Your task to perform on an android device: Show me popular videos on Youtube Image 0: 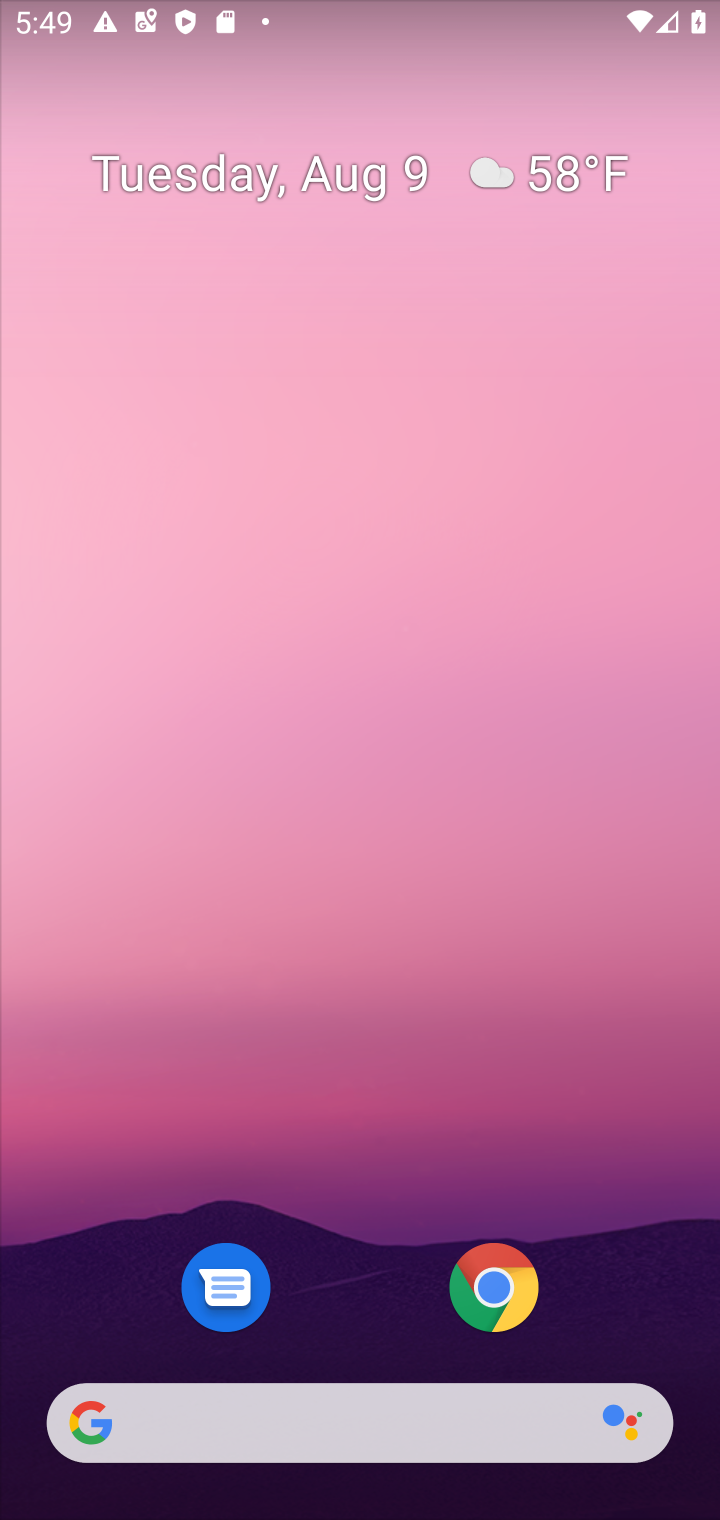
Step 0: drag from (370, 1239) to (333, 719)
Your task to perform on an android device: Show me popular videos on Youtube Image 1: 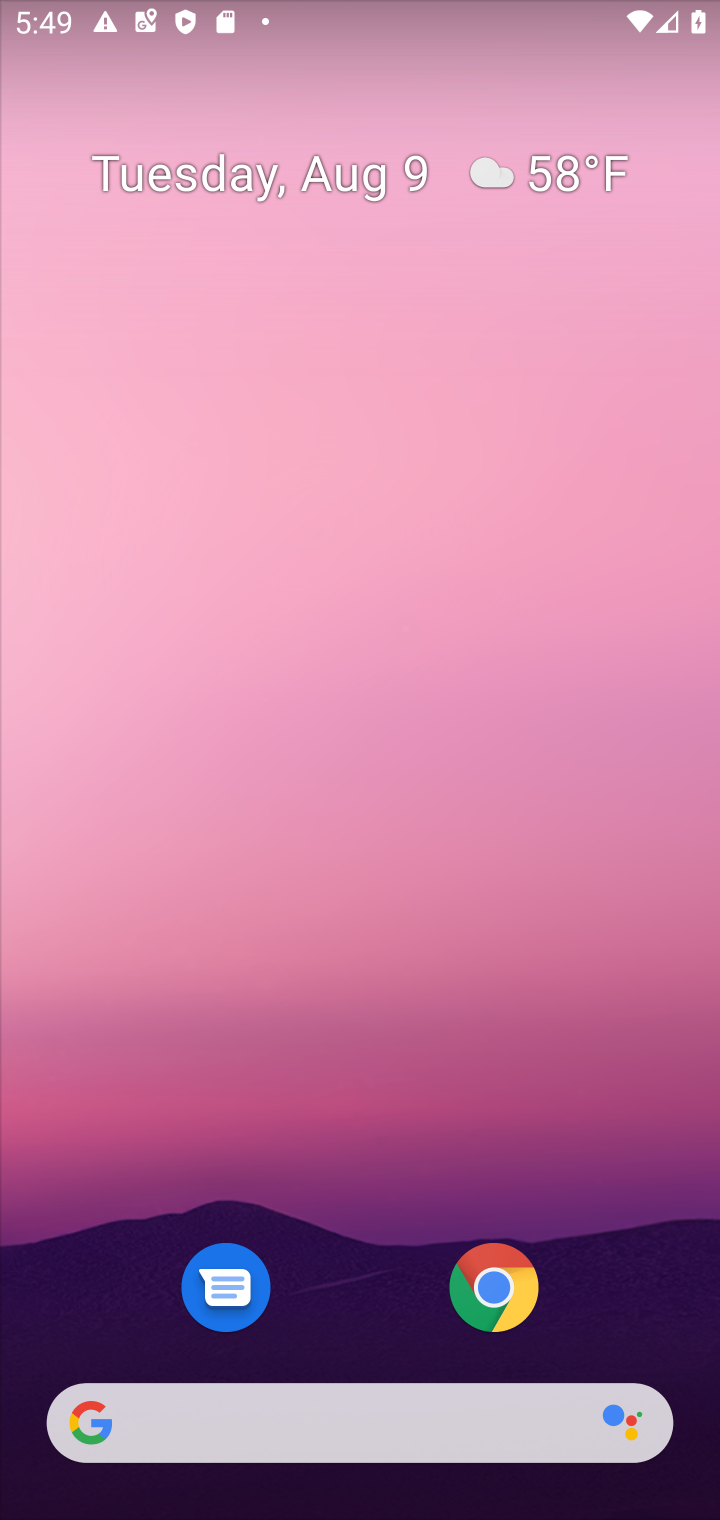
Step 1: drag from (395, 1195) to (374, 472)
Your task to perform on an android device: Show me popular videos on Youtube Image 2: 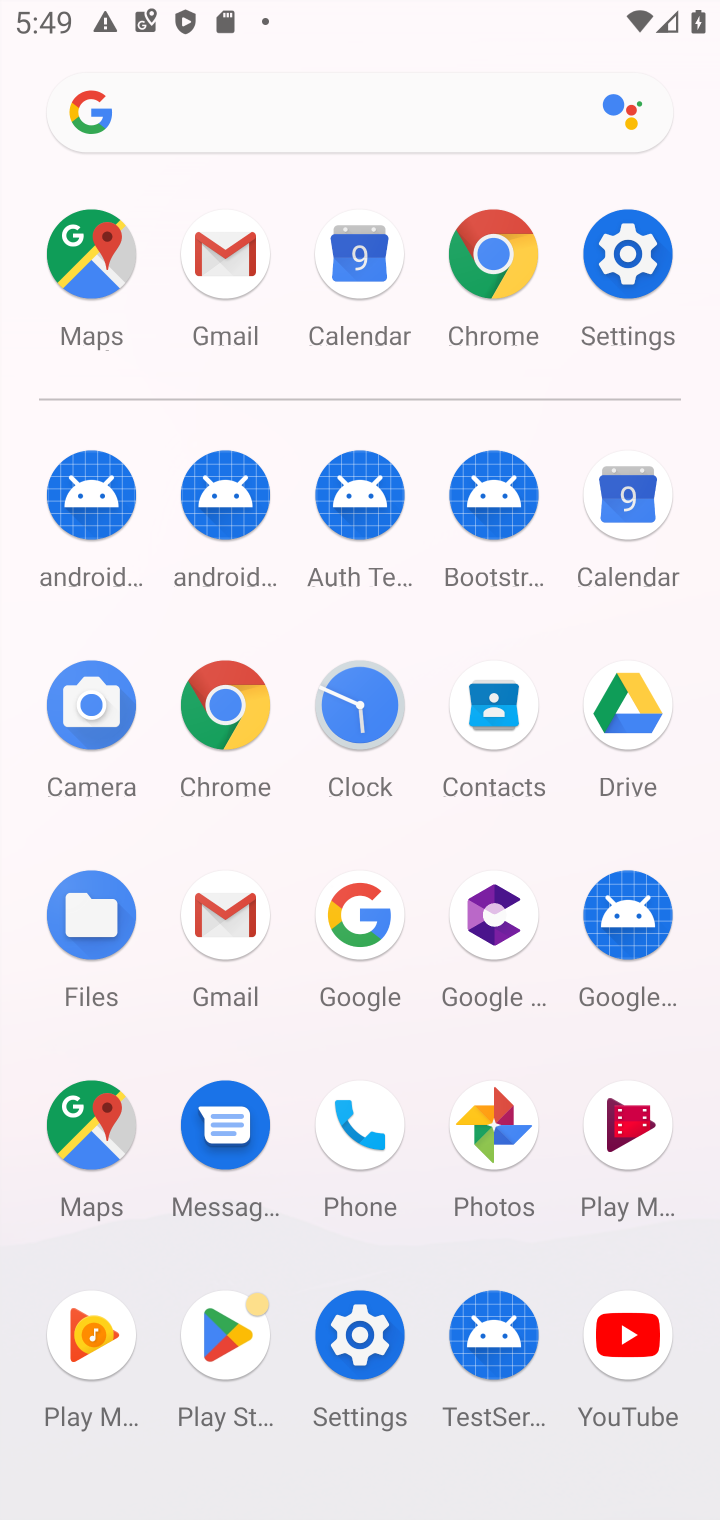
Step 2: click (619, 1340)
Your task to perform on an android device: Show me popular videos on Youtube Image 3: 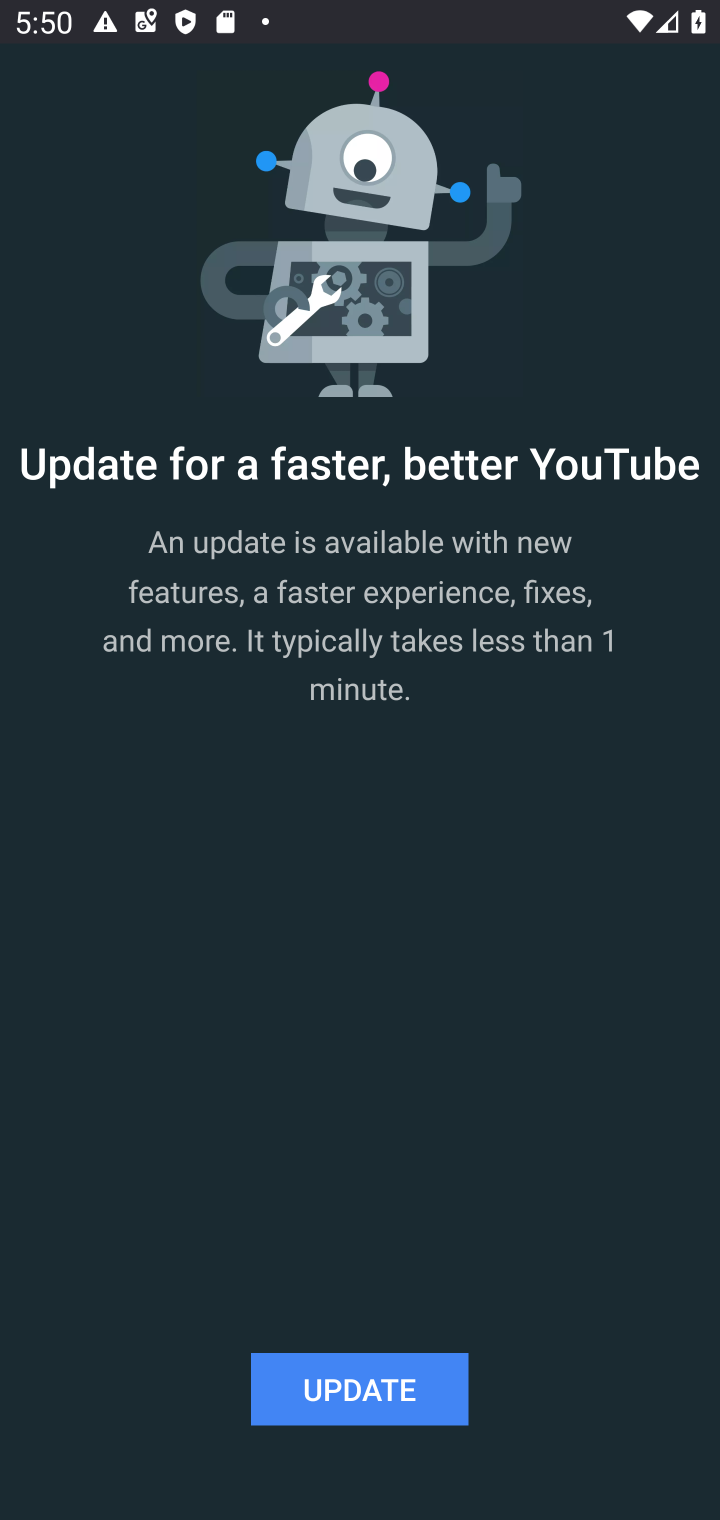
Step 3: task complete